Your task to perform on an android device: change notification settings in the gmail app Image 0: 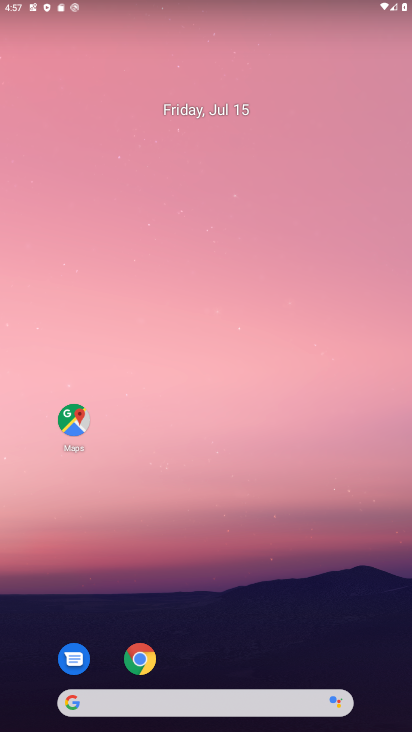
Step 0: drag from (259, 604) to (166, 6)
Your task to perform on an android device: change notification settings in the gmail app Image 1: 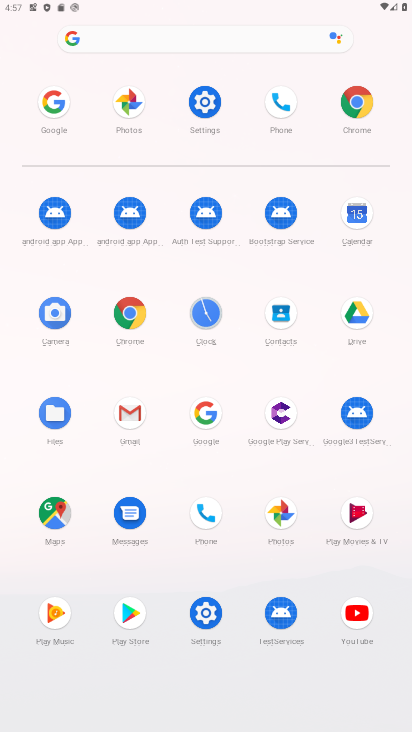
Step 1: click (134, 410)
Your task to perform on an android device: change notification settings in the gmail app Image 2: 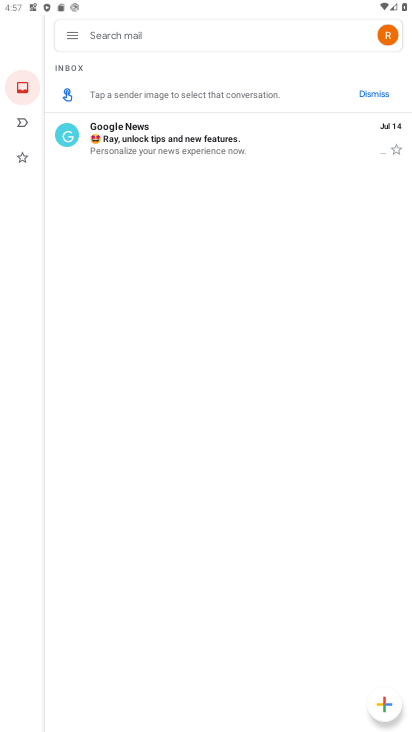
Step 2: click (63, 32)
Your task to perform on an android device: change notification settings in the gmail app Image 3: 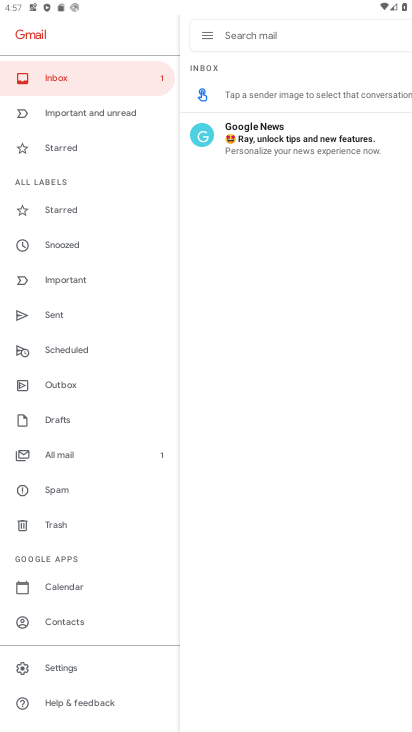
Step 3: click (88, 668)
Your task to perform on an android device: change notification settings in the gmail app Image 4: 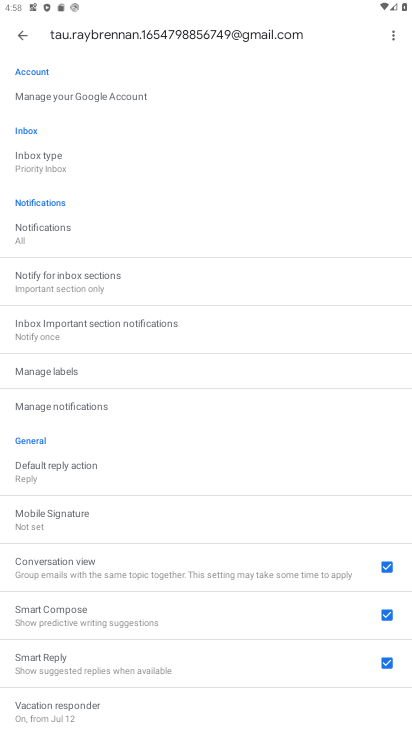
Step 4: click (43, 230)
Your task to perform on an android device: change notification settings in the gmail app Image 5: 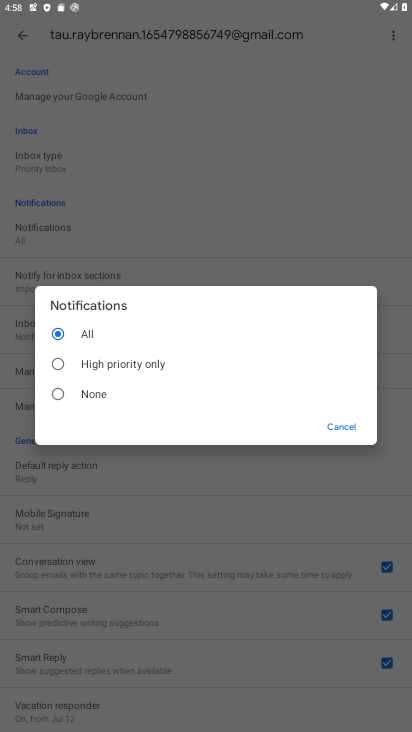
Step 5: click (124, 364)
Your task to perform on an android device: change notification settings in the gmail app Image 6: 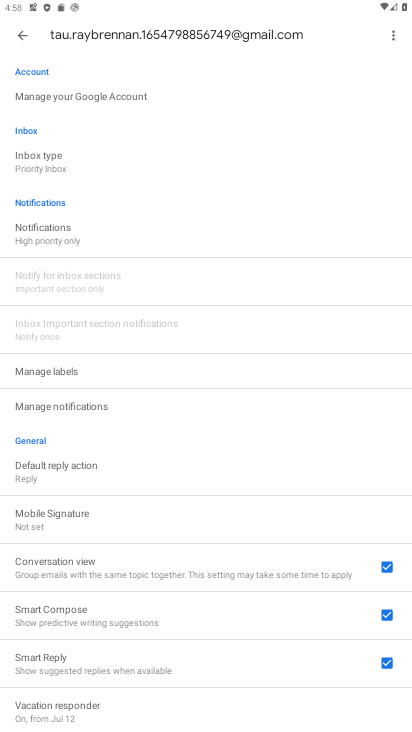
Step 6: task complete